Your task to perform on an android device: turn on showing notifications on the lock screen Image 0: 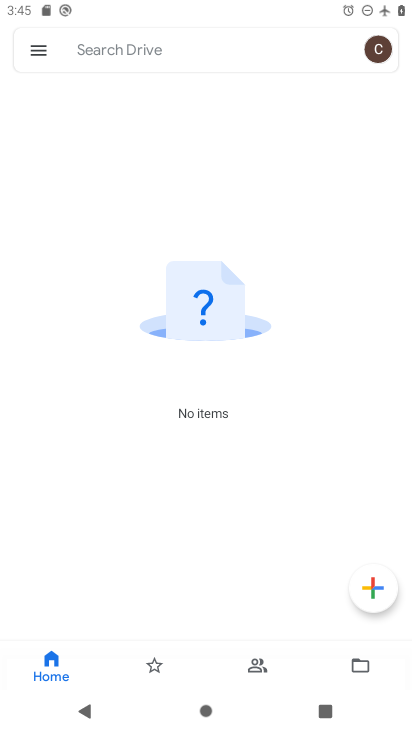
Step 0: press home button
Your task to perform on an android device: turn on showing notifications on the lock screen Image 1: 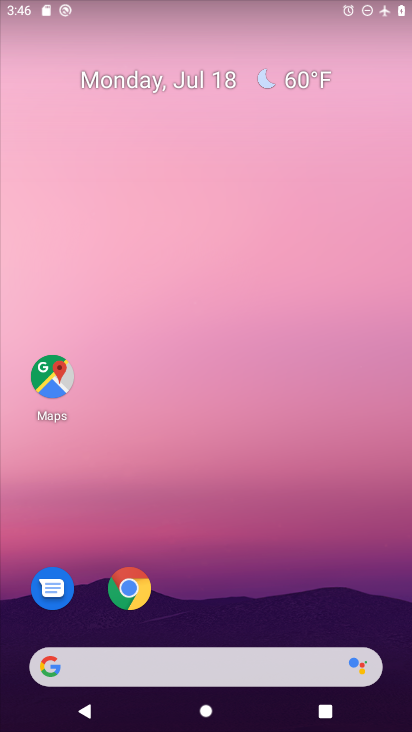
Step 1: drag from (225, 605) to (242, 99)
Your task to perform on an android device: turn on showing notifications on the lock screen Image 2: 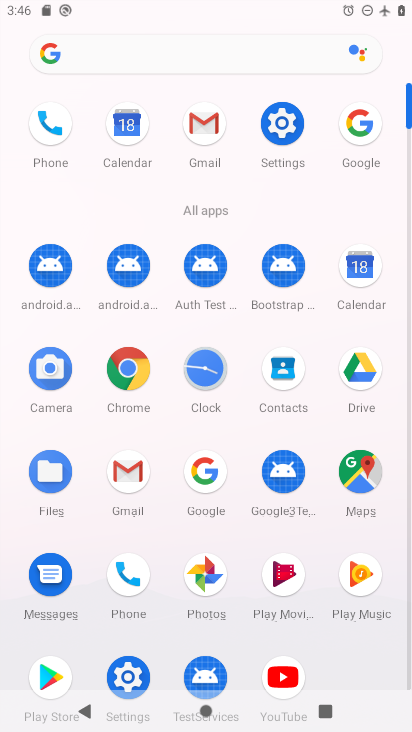
Step 2: click (279, 119)
Your task to perform on an android device: turn on showing notifications on the lock screen Image 3: 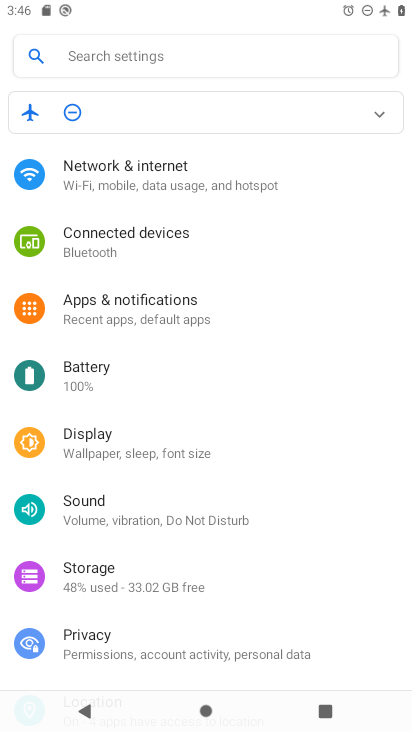
Step 3: click (165, 307)
Your task to perform on an android device: turn on showing notifications on the lock screen Image 4: 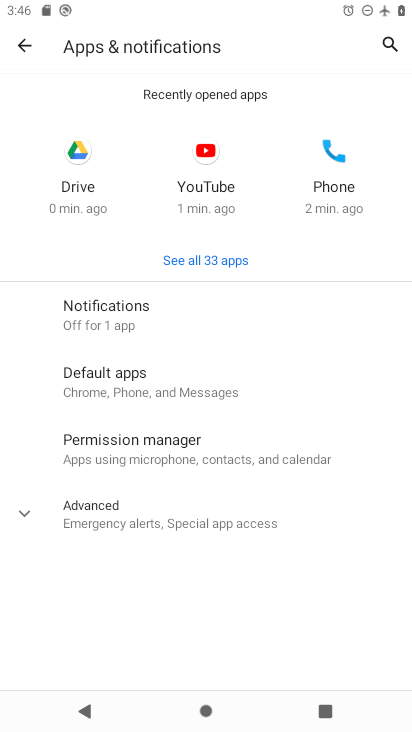
Step 4: click (93, 317)
Your task to perform on an android device: turn on showing notifications on the lock screen Image 5: 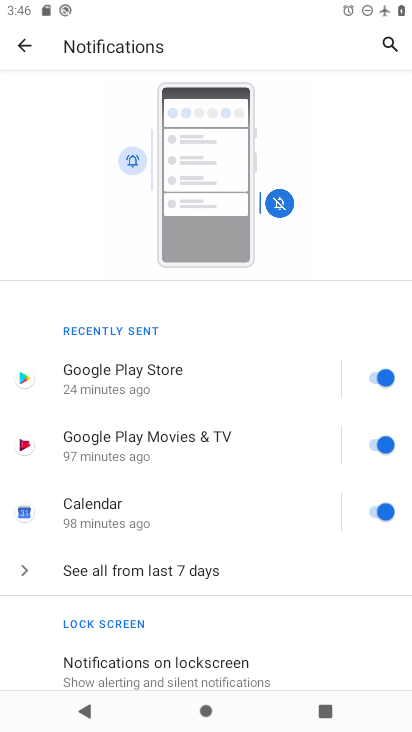
Step 5: task complete